Your task to perform on an android device: turn on data saver in the chrome app Image 0: 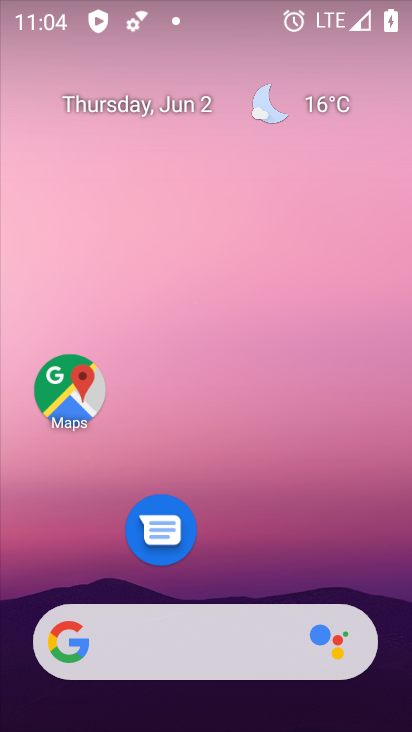
Step 0: drag from (232, 596) to (161, 132)
Your task to perform on an android device: turn on data saver in the chrome app Image 1: 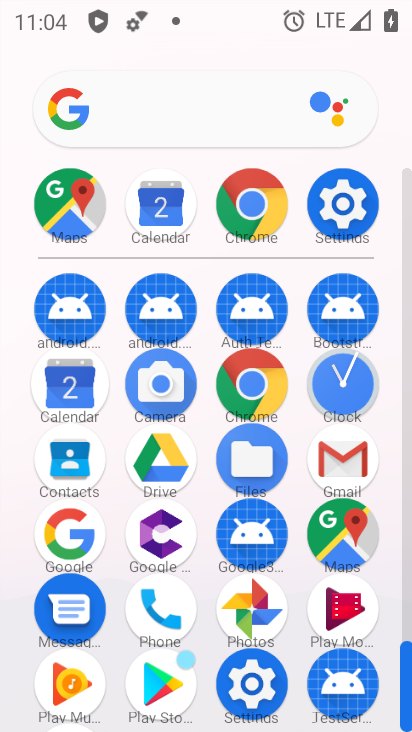
Step 1: click (251, 200)
Your task to perform on an android device: turn on data saver in the chrome app Image 2: 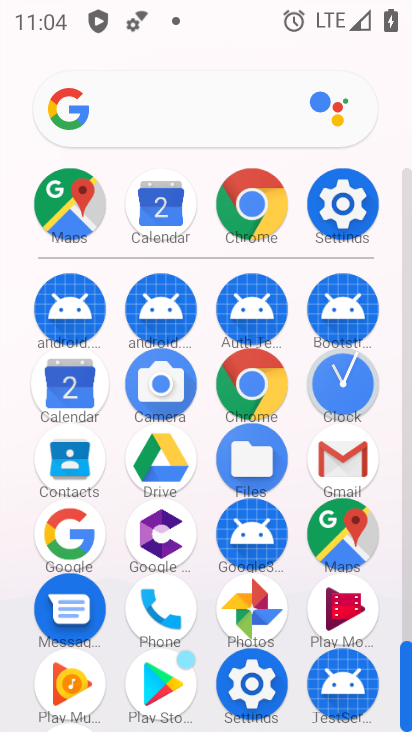
Step 2: click (251, 200)
Your task to perform on an android device: turn on data saver in the chrome app Image 3: 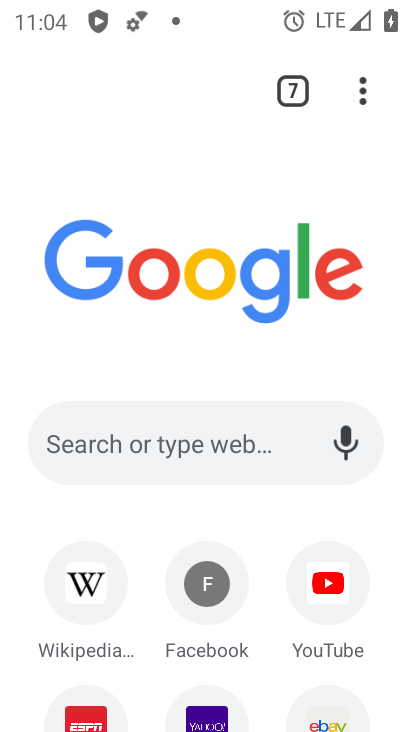
Step 3: drag from (359, 98) to (76, 551)
Your task to perform on an android device: turn on data saver in the chrome app Image 4: 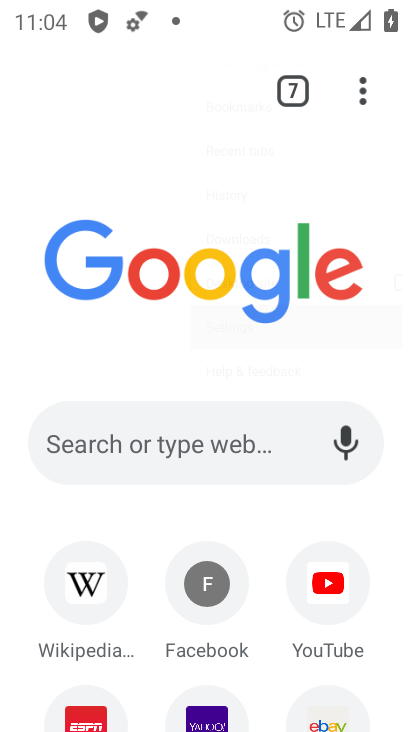
Step 4: click (97, 568)
Your task to perform on an android device: turn on data saver in the chrome app Image 5: 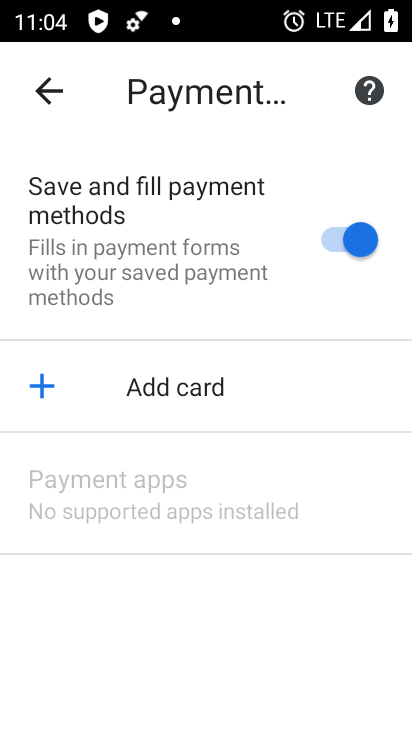
Step 5: click (48, 88)
Your task to perform on an android device: turn on data saver in the chrome app Image 6: 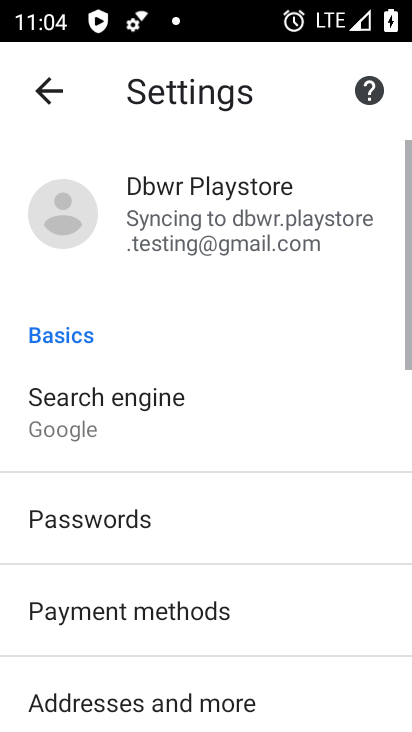
Step 6: drag from (190, 556) to (180, 242)
Your task to perform on an android device: turn on data saver in the chrome app Image 7: 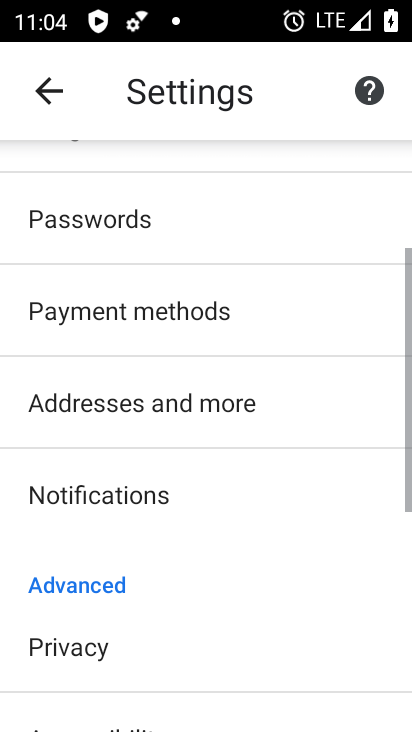
Step 7: drag from (241, 523) to (237, 168)
Your task to perform on an android device: turn on data saver in the chrome app Image 8: 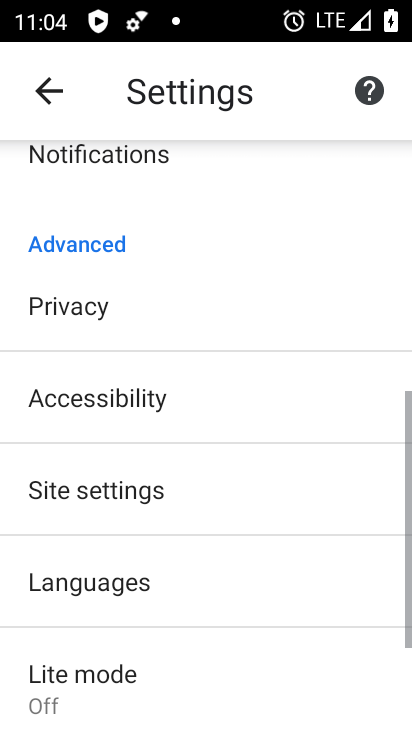
Step 8: drag from (256, 524) to (254, 104)
Your task to perform on an android device: turn on data saver in the chrome app Image 9: 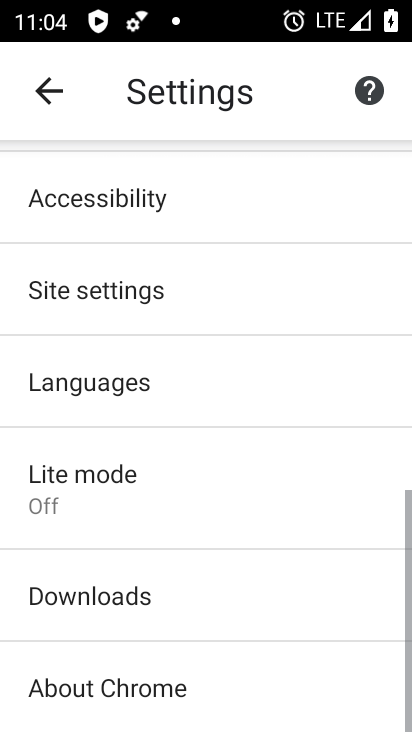
Step 9: click (67, 475)
Your task to perform on an android device: turn on data saver in the chrome app Image 10: 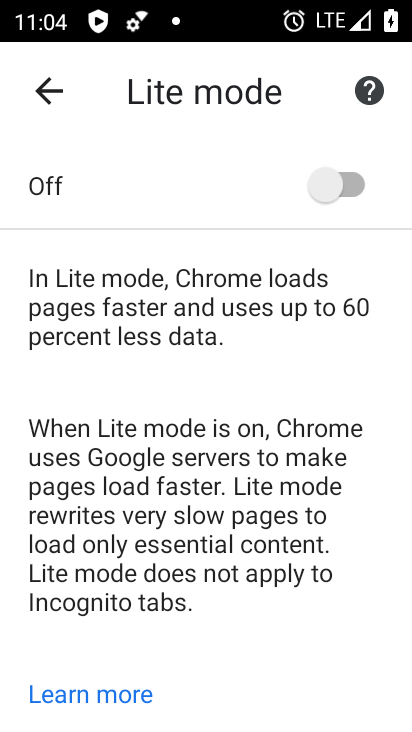
Step 10: click (320, 181)
Your task to perform on an android device: turn on data saver in the chrome app Image 11: 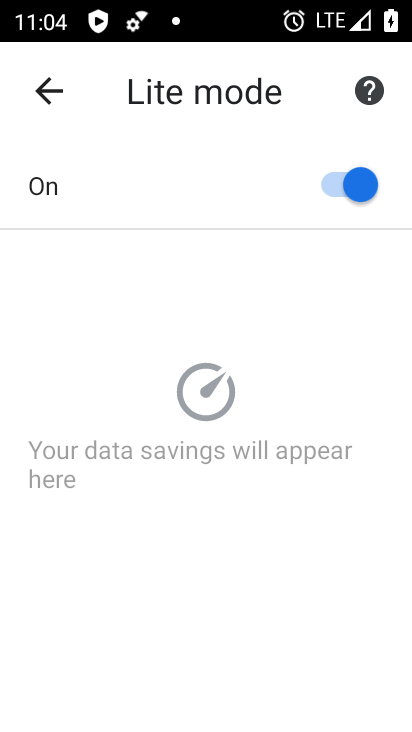
Step 11: task complete